Your task to perform on an android device: snooze an email in the gmail app Image 0: 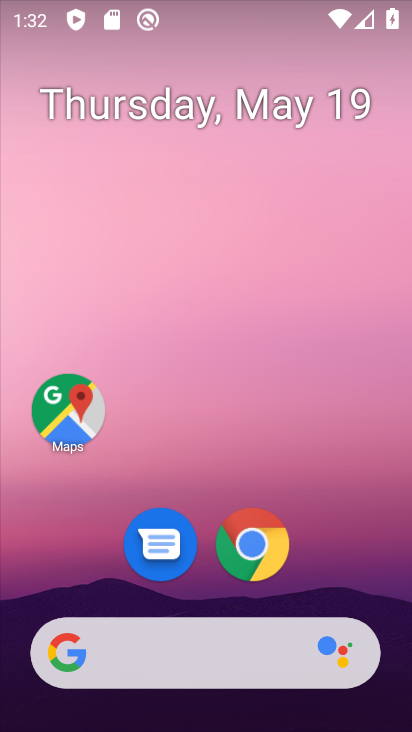
Step 0: drag from (279, 672) to (248, 228)
Your task to perform on an android device: snooze an email in the gmail app Image 1: 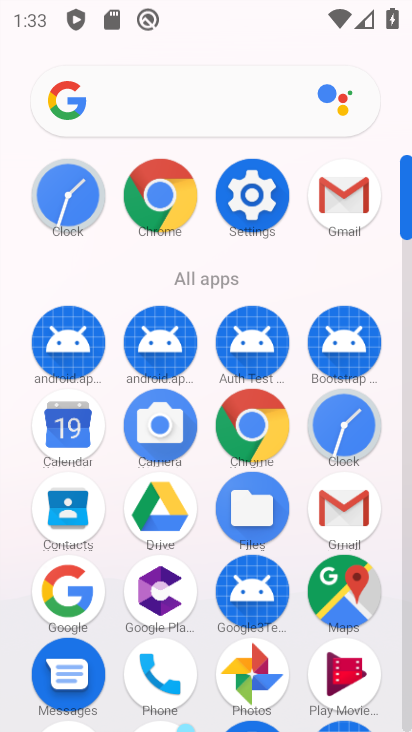
Step 1: click (340, 205)
Your task to perform on an android device: snooze an email in the gmail app Image 2: 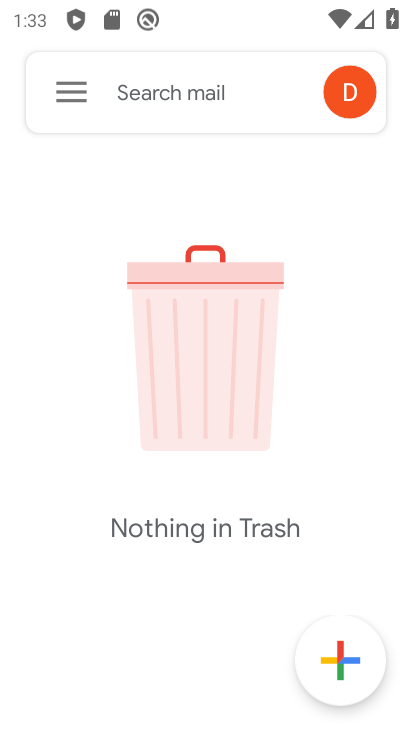
Step 2: click (71, 97)
Your task to perform on an android device: snooze an email in the gmail app Image 3: 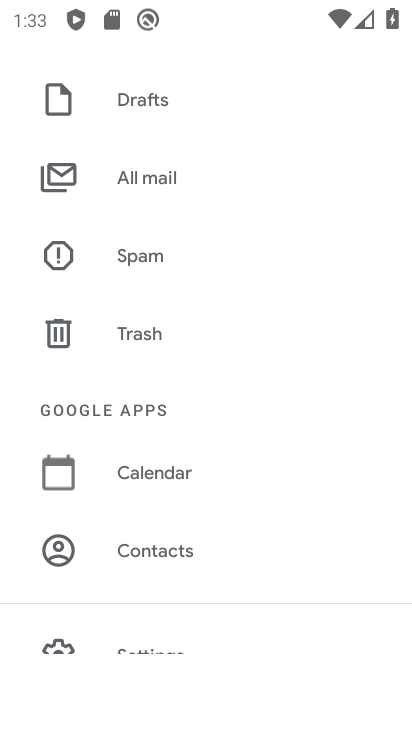
Step 3: drag from (132, 208) to (162, 374)
Your task to perform on an android device: snooze an email in the gmail app Image 4: 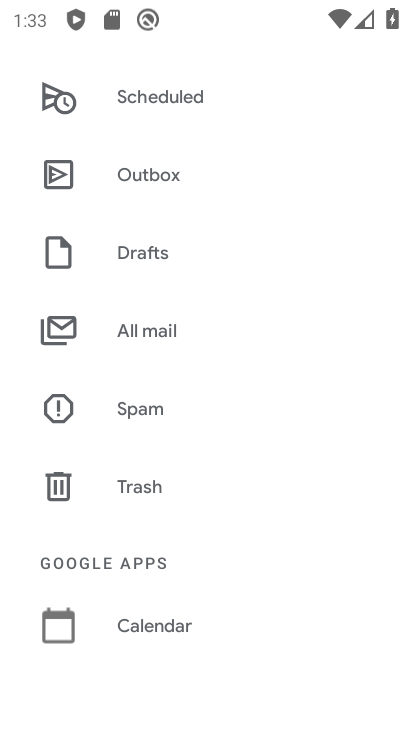
Step 4: drag from (113, 178) to (147, 512)
Your task to perform on an android device: snooze an email in the gmail app Image 5: 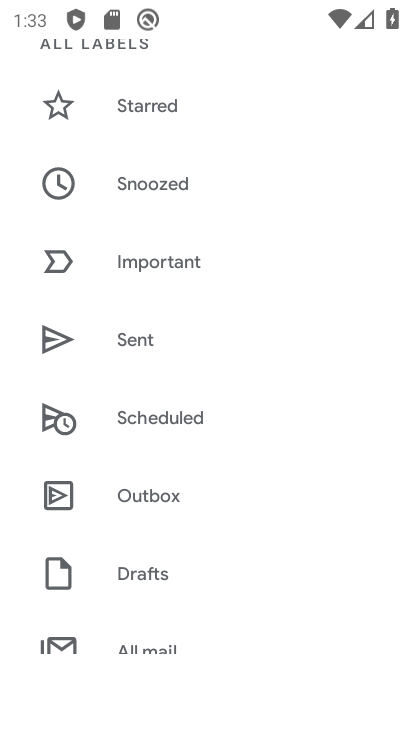
Step 5: drag from (149, 173) to (162, 276)
Your task to perform on an android device: snooze an email in the gmail app Image 6: 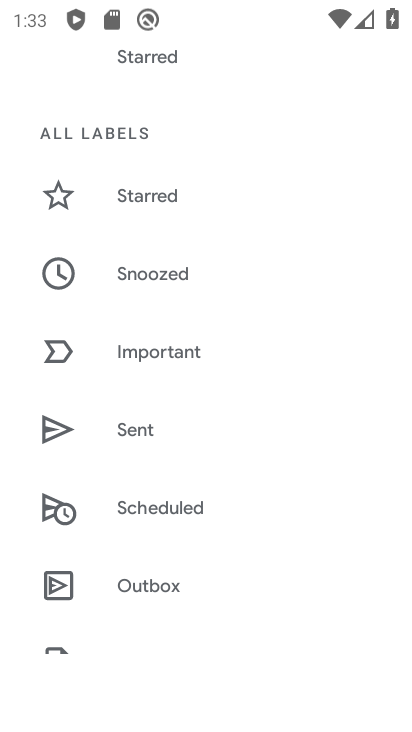
Step 6: click (162, 274)
Your task to perform on an android device: snooze an email in the gmail app Image 7: 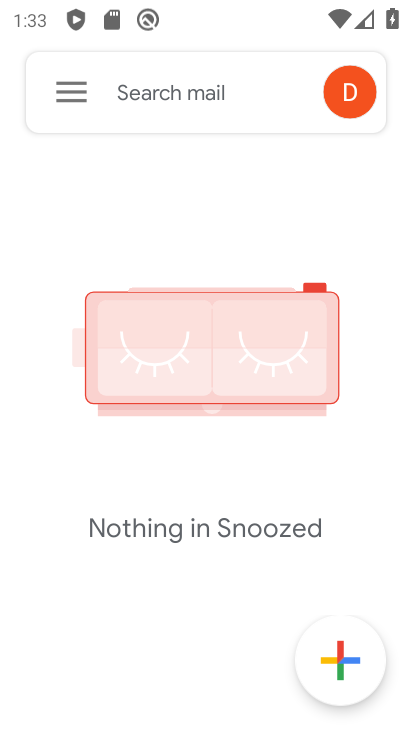
Step 7: task complete